Your task to perform on an android device: toggle location history Image 0: 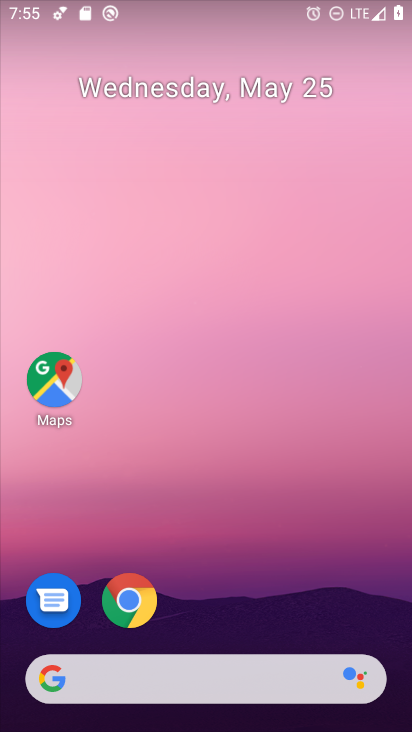
Step 0: drag from (327, 564) to (249, 165)
Your task to perform on an android device: toggle location history Image 1: 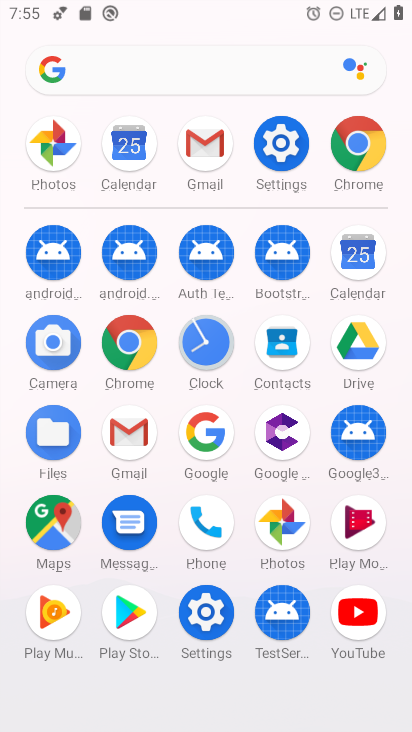
Step 1: click (282, 143)
Your task to perform on an android device: toggle location history Image 2: 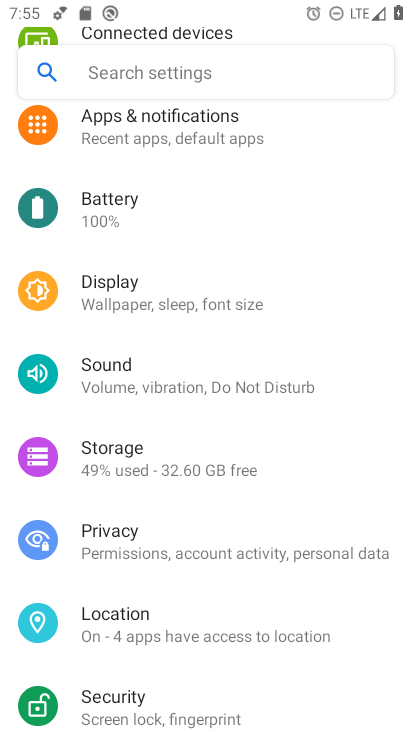
Step 2: drag from (208, 325) to (260, 644)
Your task to perform on an android device: toggle location history Image 3: 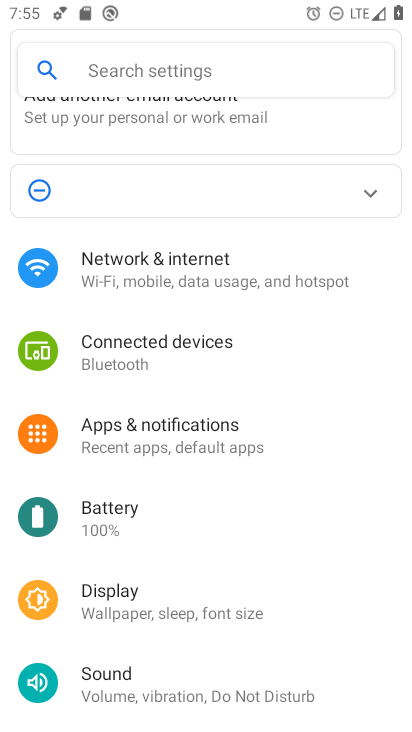
Step 3: drag from (202, 557) to (235, 156)
Your task to perform on an android device: toggle location history Image 4: 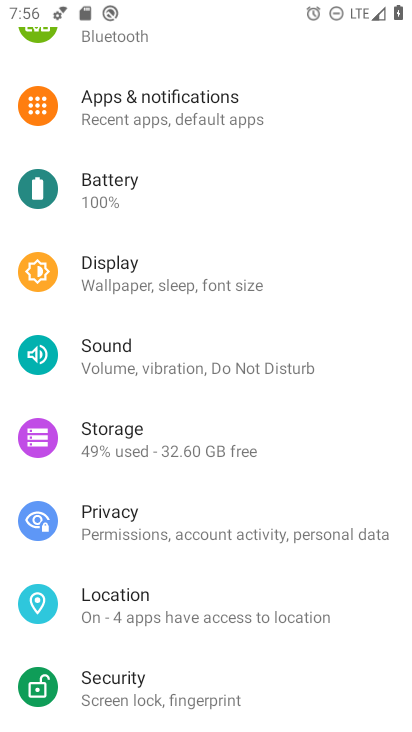
Step 4: drag from (289, 285) to (212, 635)
Your task to perform on an android device: toggle location history Image 5: 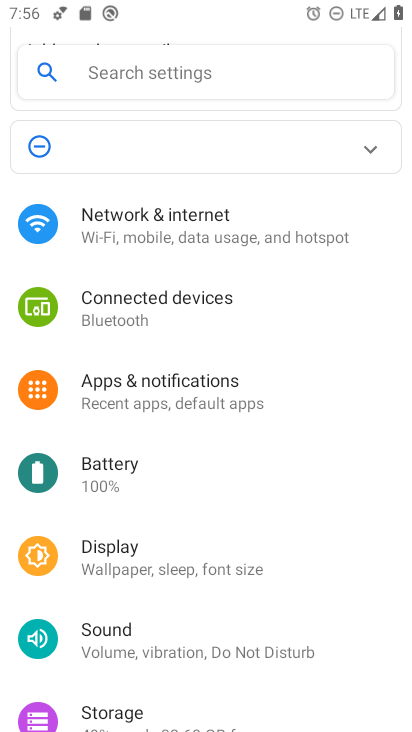
Step 5: drag from (200, 413) to (231, 23)
Your task to perform on an android device: toggle location history Image 6: 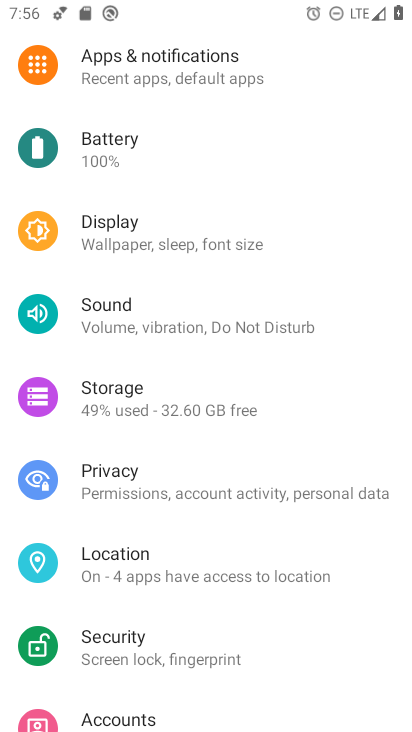
Step 6: click (176, 555)
Your task to perform on an android device: toggle location history Image 7: 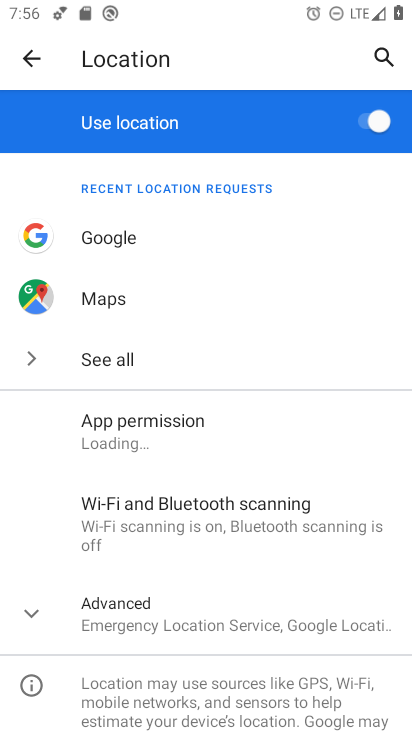
Step 7: click (142, 629)
Your task to perform on an android device: toggle location history Image 8: 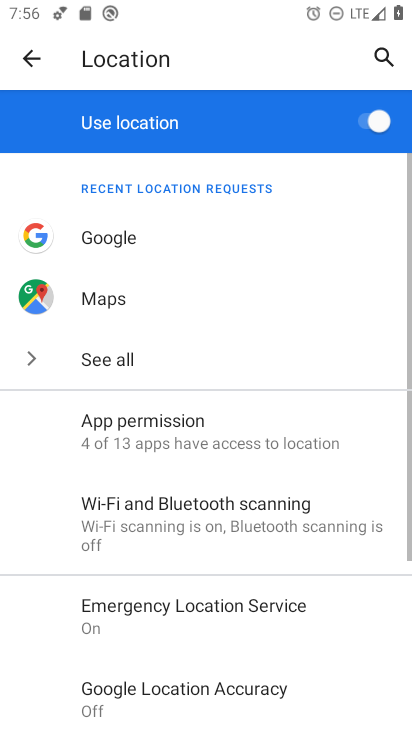
Step 8: drag from (323, 691) to (342, 341)
Your task to perform on an android device: toggle location history Image 9: 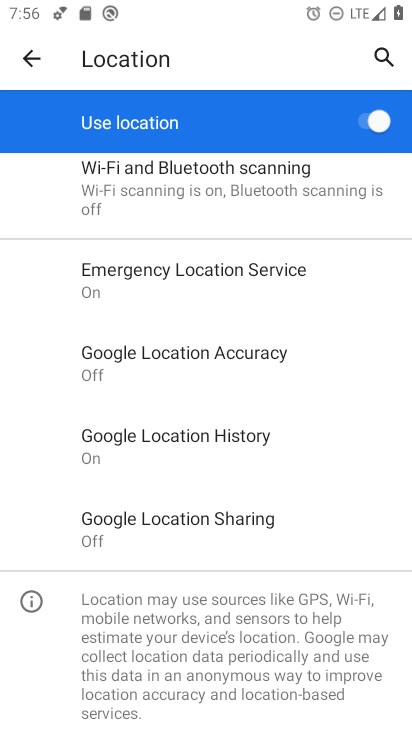
Step 9: click (253, 431)
Your task to perform on an android device: toggle location history Image 10: 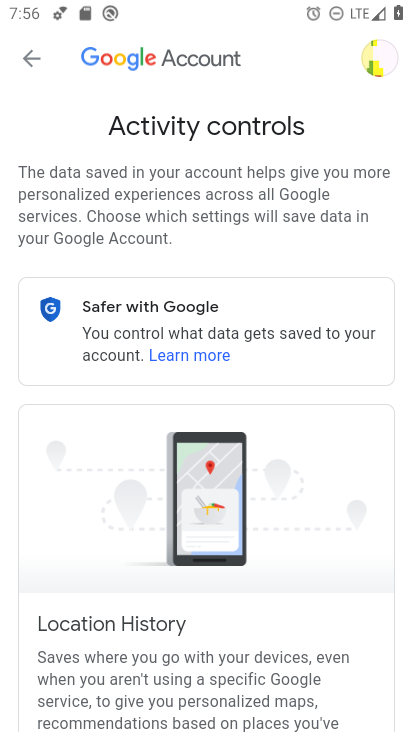
Step 10: drag from (241, 636) to (150, 144)
Your task to perform on an android device: toggle location history Image 11: 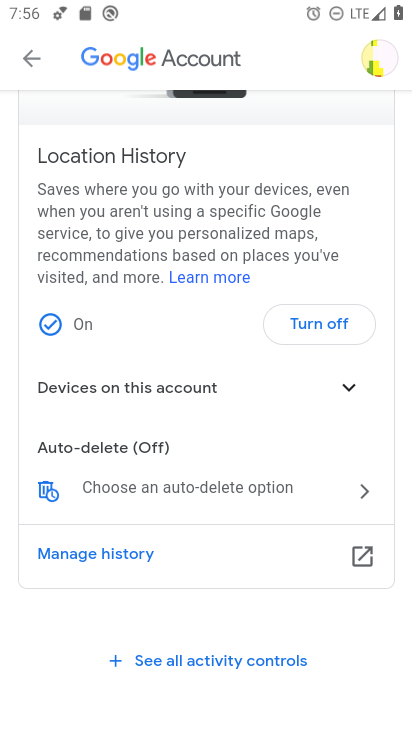
Step 11: click (283, 321)
Your task to perform on an android device: toggle location history Image 12: 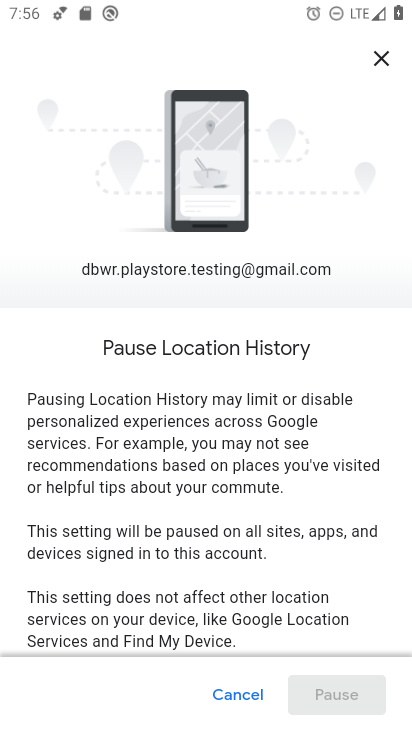
Step 12: drag from (284, 529) to (268, 184)
Your task to perform on an android device: toggle location history Image 13: 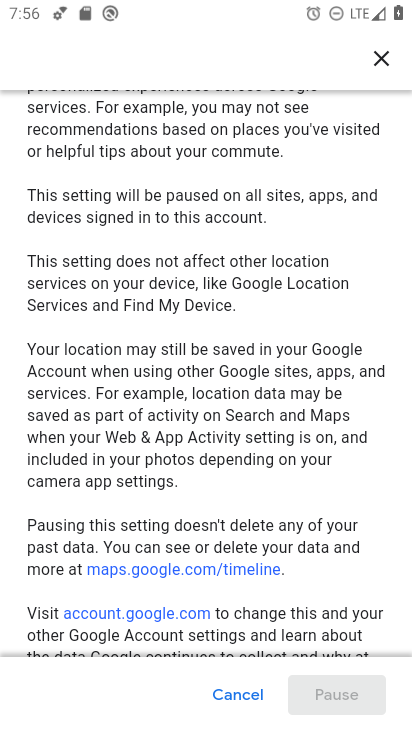
Step 13: drag from (204, 556) to (239, 236)
Your task to perform on an android device: toggle location history Image 14: 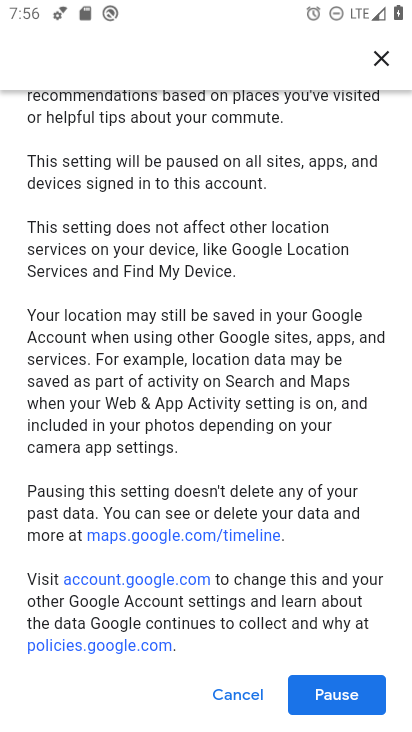
Step 14: drag from (307, 592) to (295, 295)
Your task to perform on an android device: toggle location history Image 15: 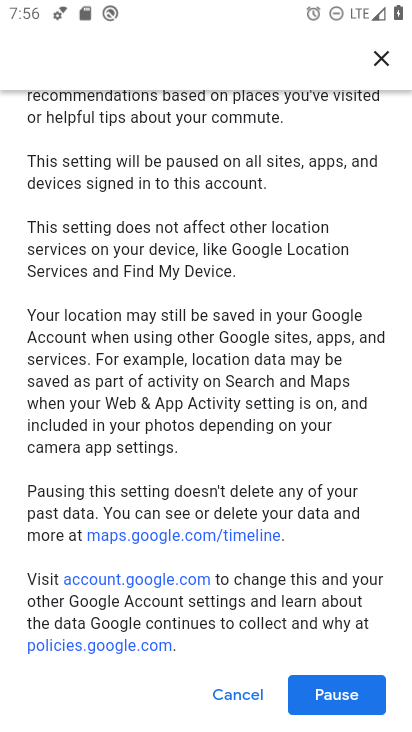
Step 15: click (319, 698)
Your task to perform on an android device: toggle location history Image 16: 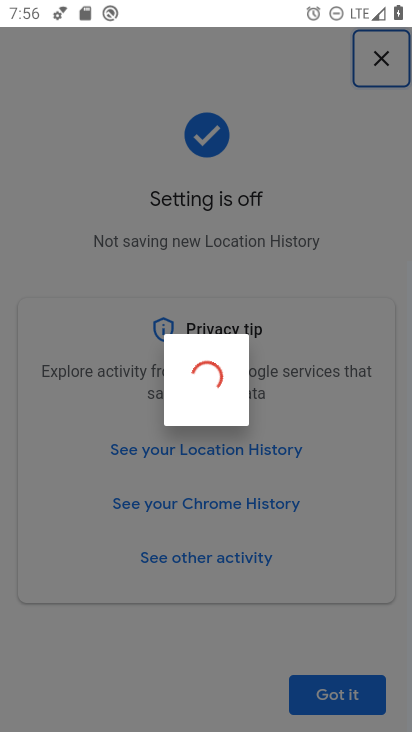
Step 16: click (326, 700)
Your task to perform on an android device: toggle location history Image 17: 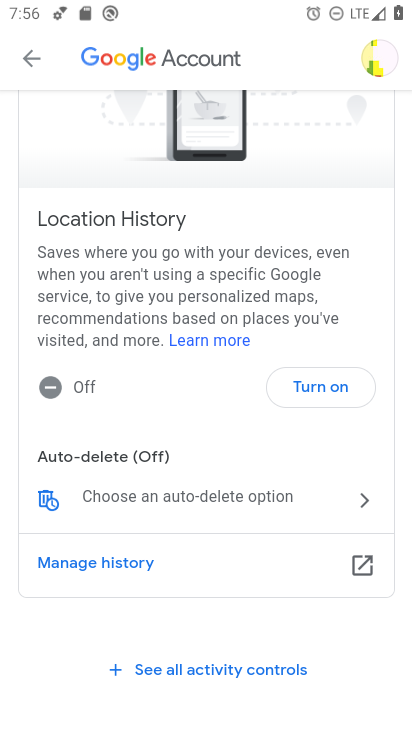
Step 17: task complete